Your task to perform on an android device: turn off location history Image 0: 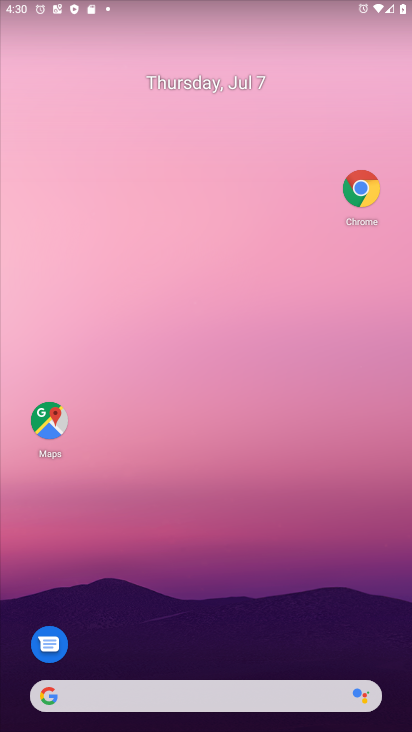
Step 0: click (44, 419)
Your task to perform on an android device: turn off location history Image 1: 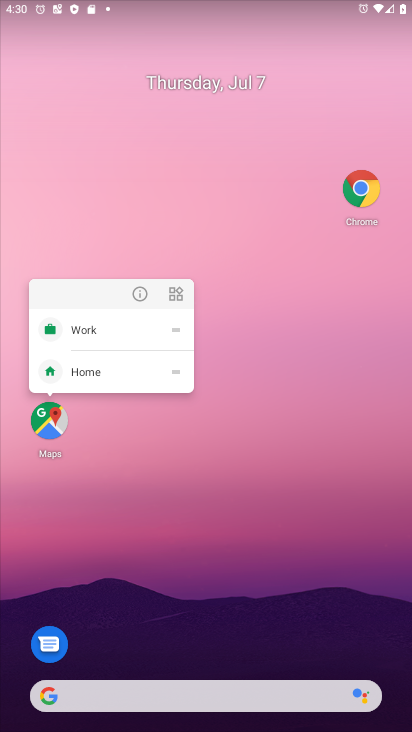
Step 1: click (44, 419)
Your task to perform on an android device: turn off location history Image 2: 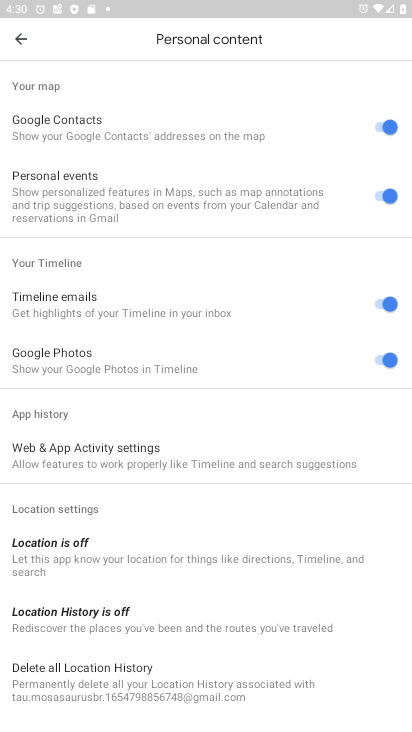
Step 2: task complete